Your task to perform on an android device: open app "Microsoft Outlook" (install if not already installed) Image 0: 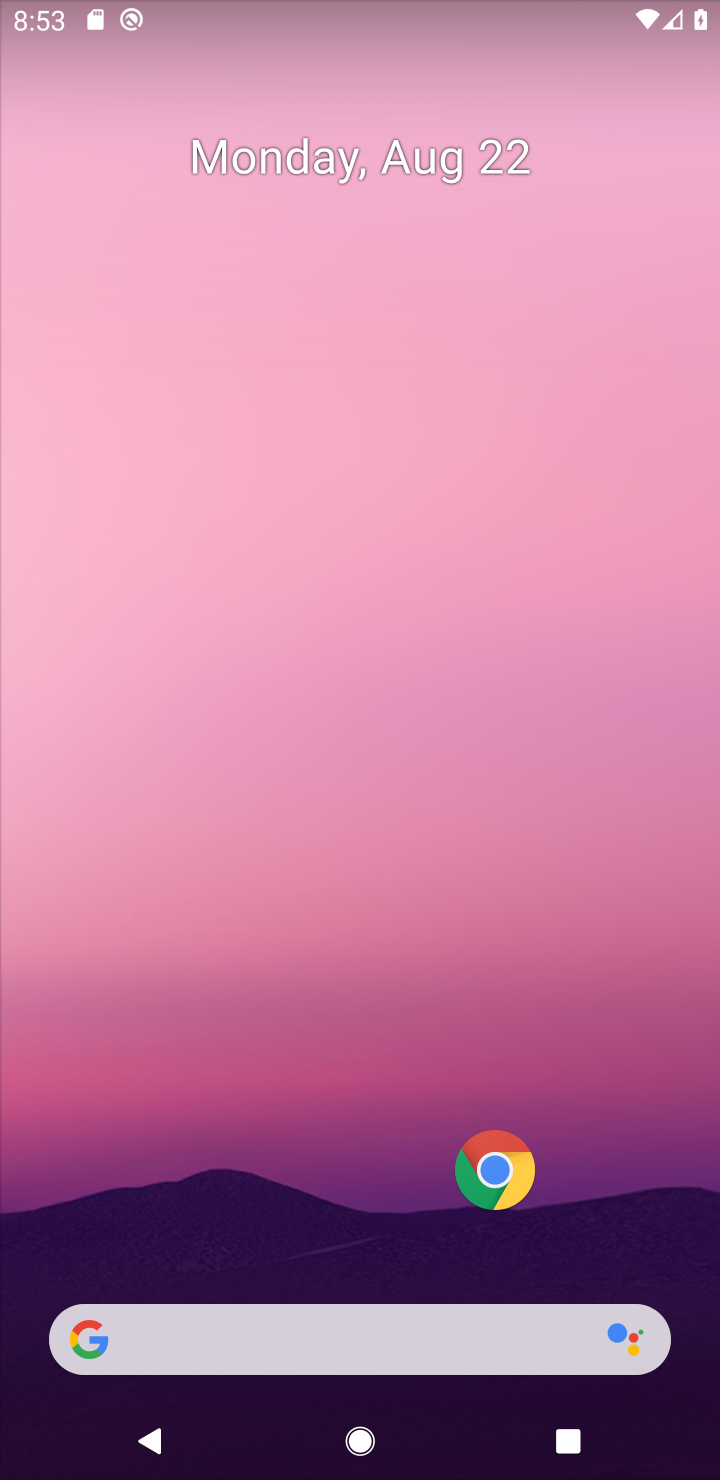
Step 0: drag from (264, 1065) to (397, 85)
Your task to perform on an android device: open app "Microsoft Outlook" (install if not already installed) Image 1: 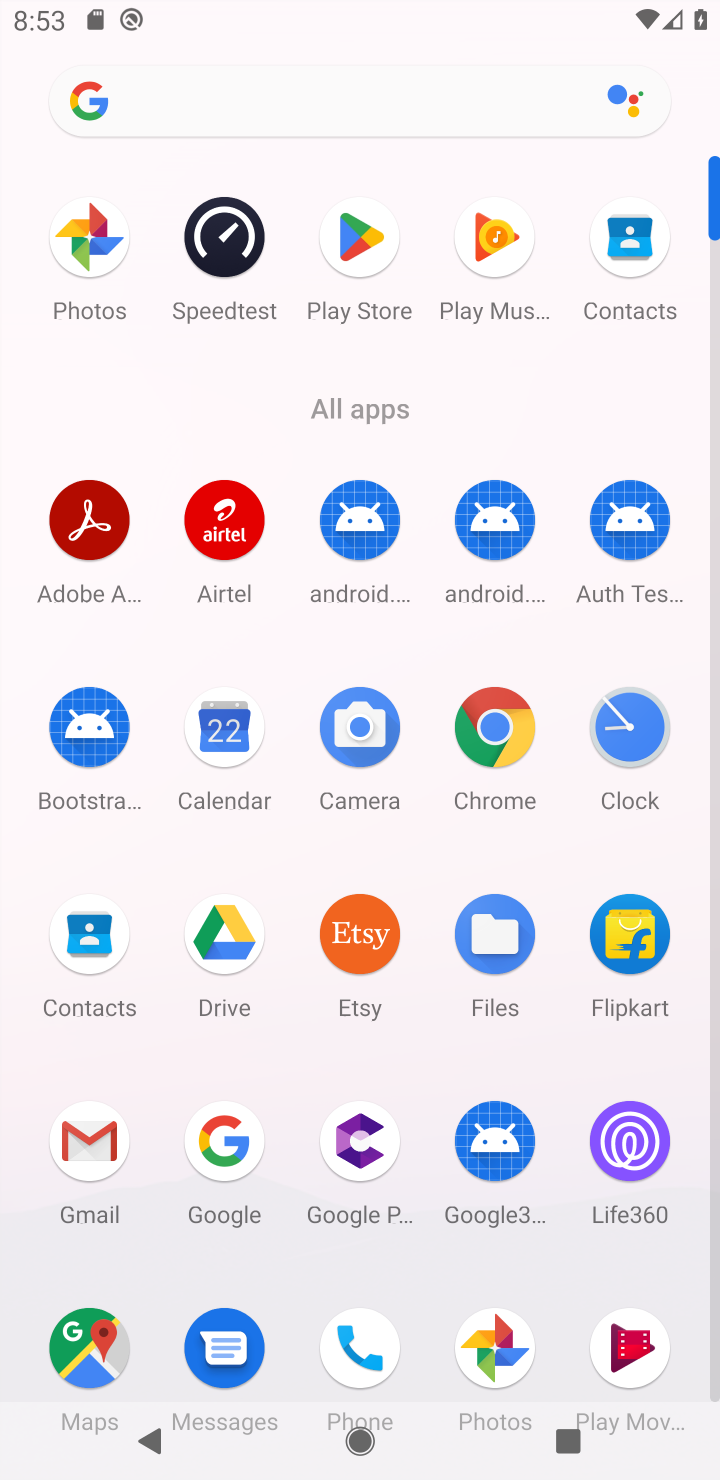
Step 1: click (375, 233)
Your task to perform on an android device: open app "Microsoft Outlook" (install if not already installed) Image 2: 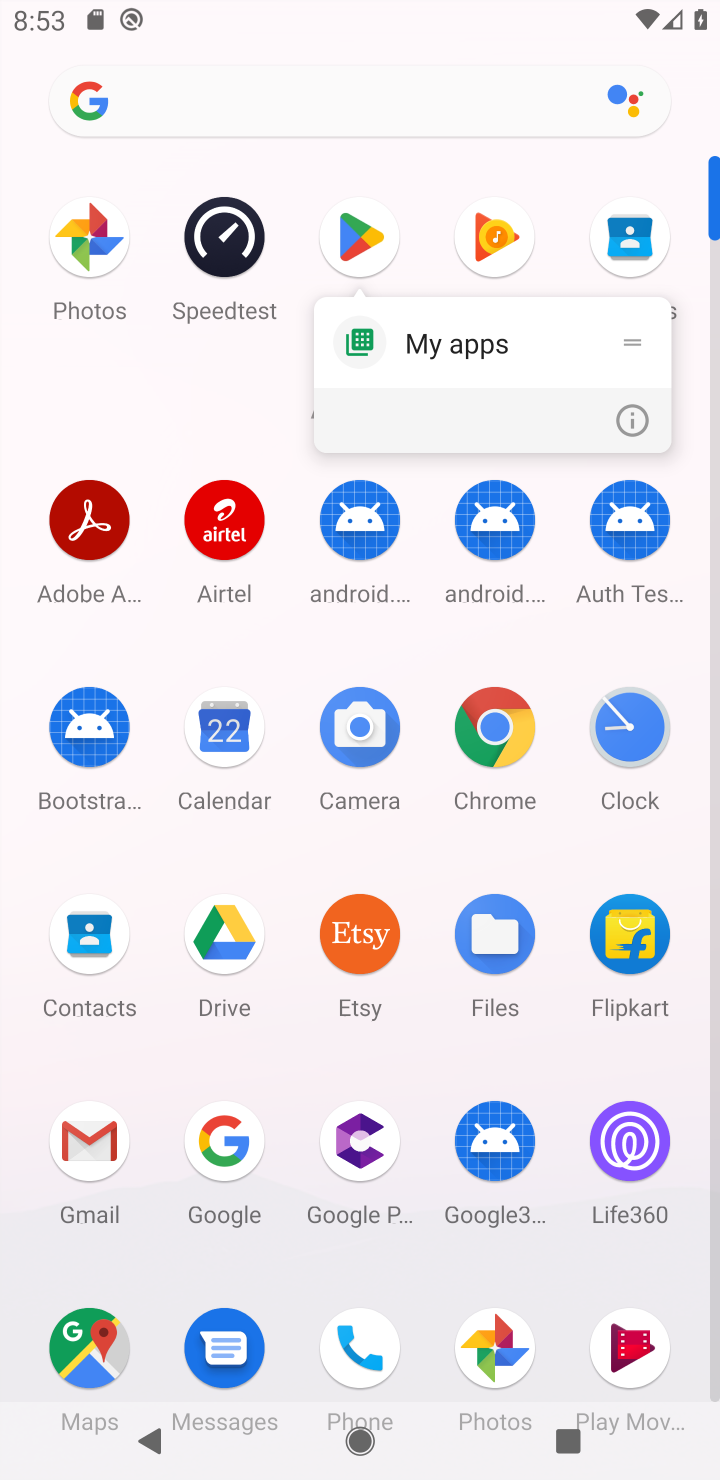
Step 2: click (355, 227)
Your task to perform on an android device: open app "Microsoft Outlook" (install if not already installed) Image 3: 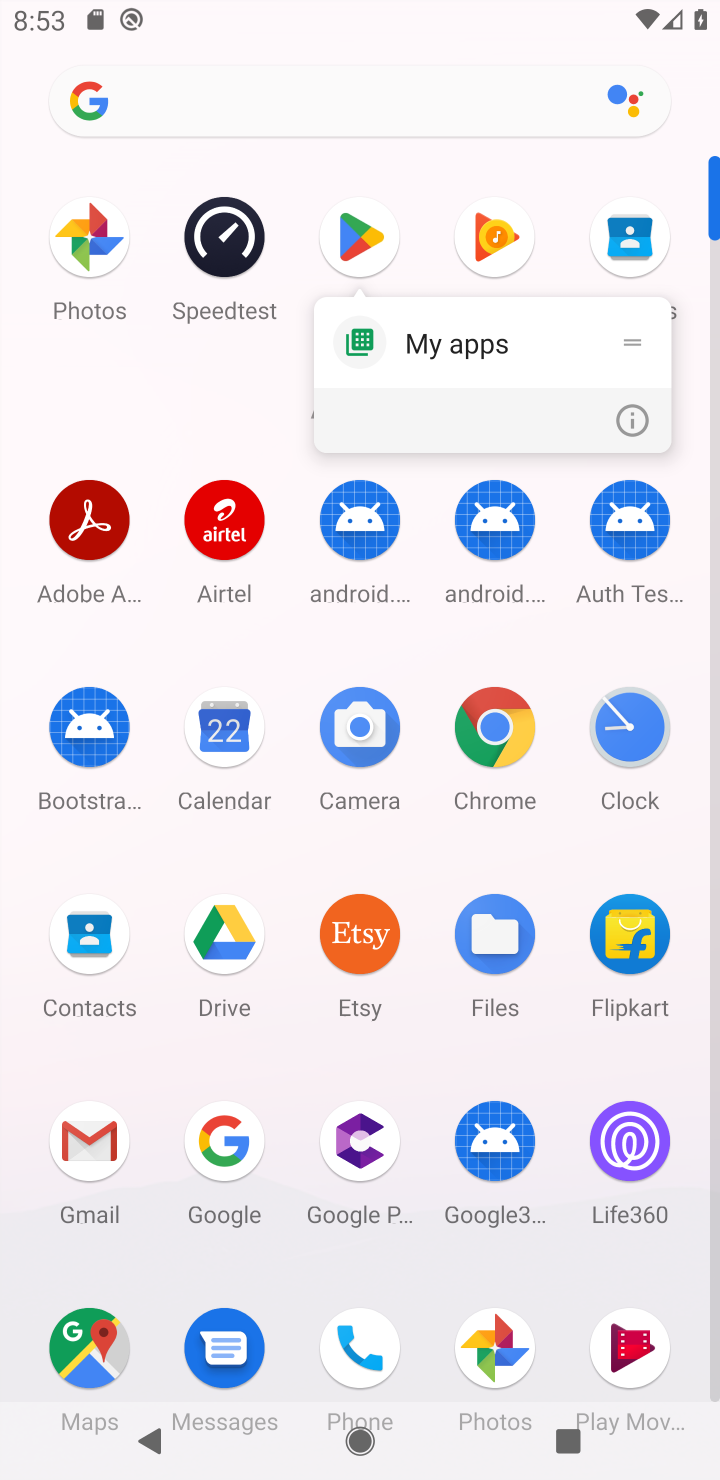
Step 3: click (345, 225)
Your task to perform on an android device: open app "Microsoft Outlook" (install if not already installed) Image 4: 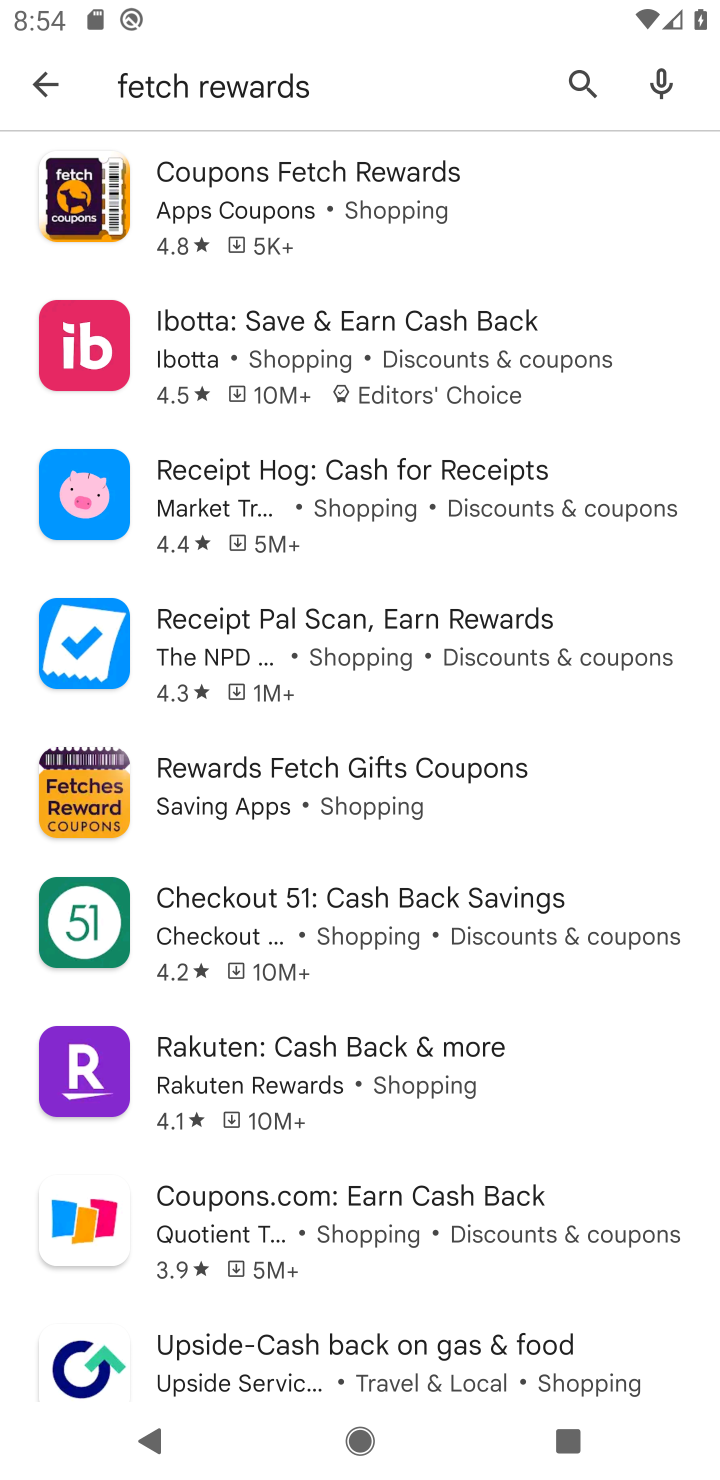
Step 4: click (582, 76)
Your task to perform on an android device: open app "Microsoft Outlook" (install if not already installed) Image 5: 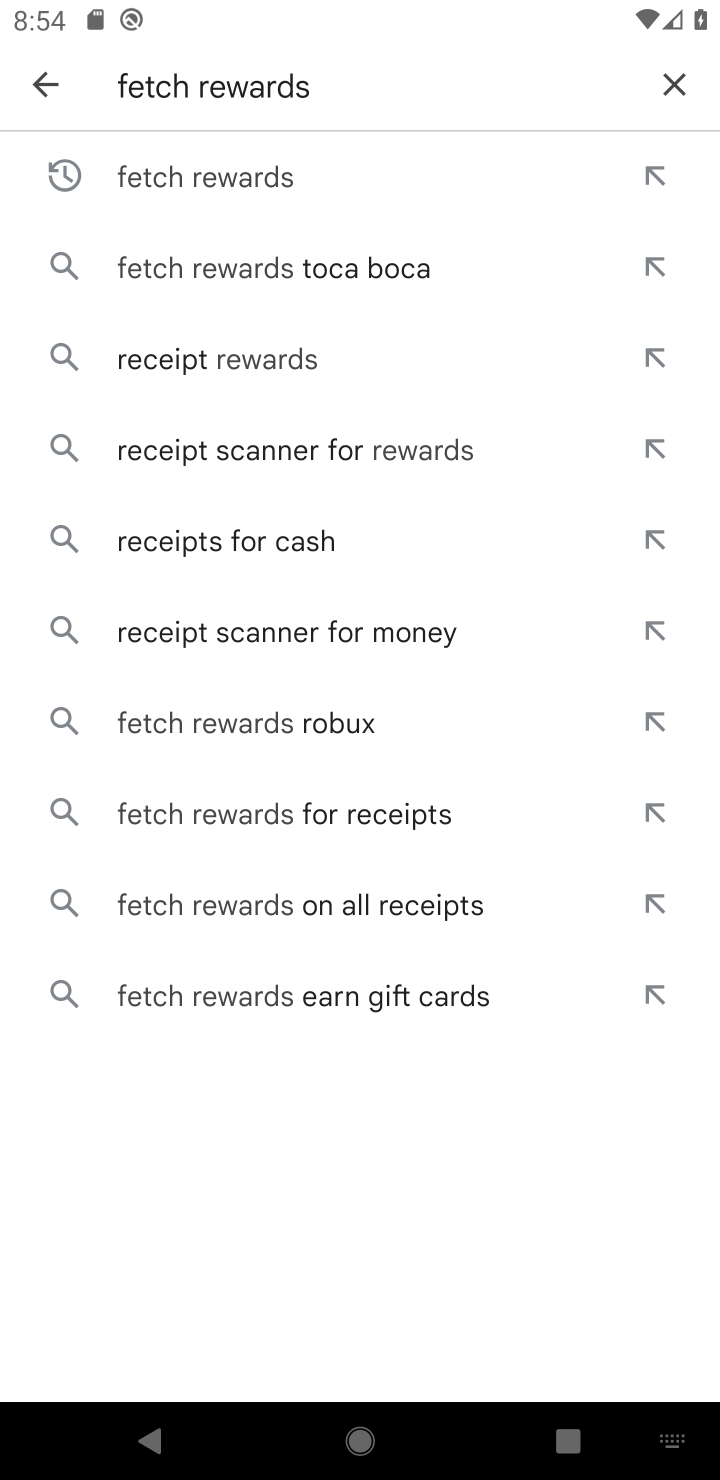
Step 5: click (666, 65)
Your task to perform on an android device: open app "Microsoft Outlook" (install if not already installed) Image 6: 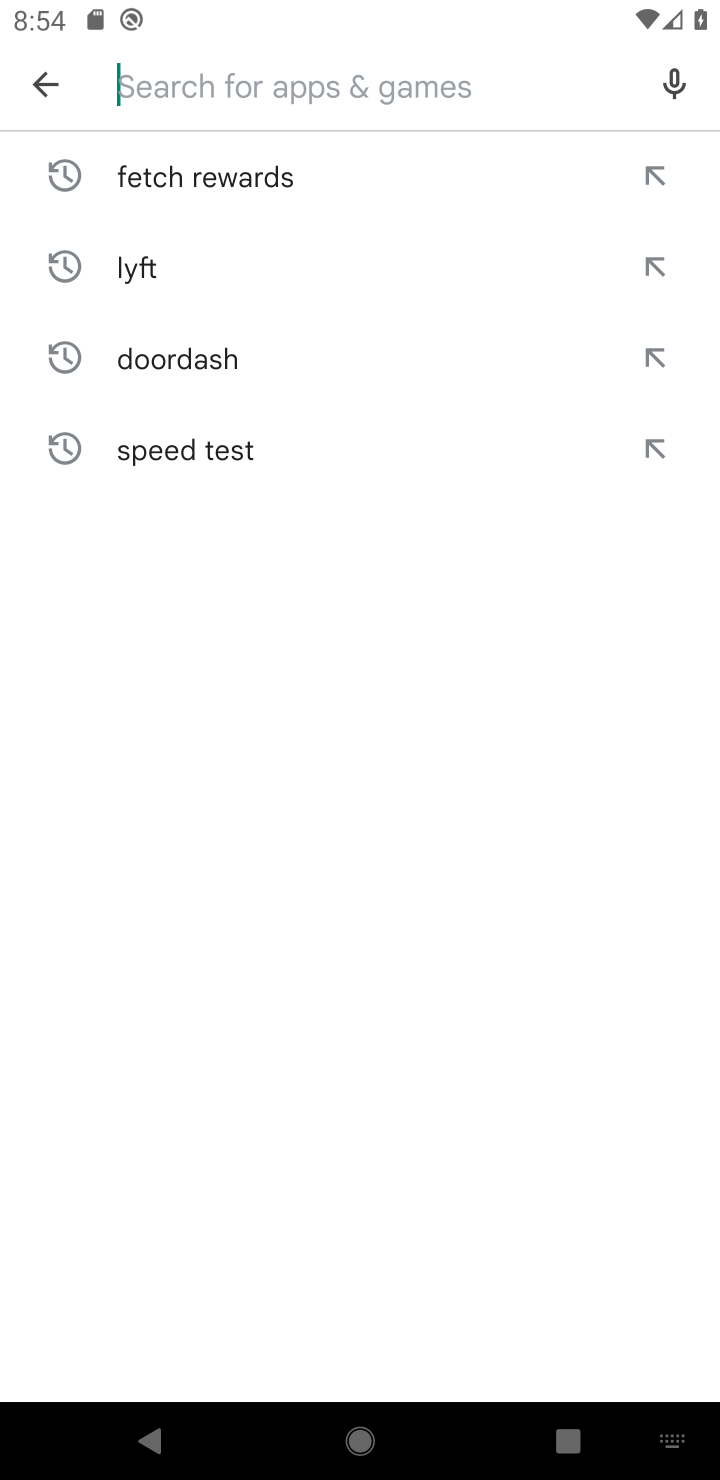
Step 6: click (223, 78)
Your task to perform on an android device: open app "Microsoft Outlook" (install if not already installed) Image 7: 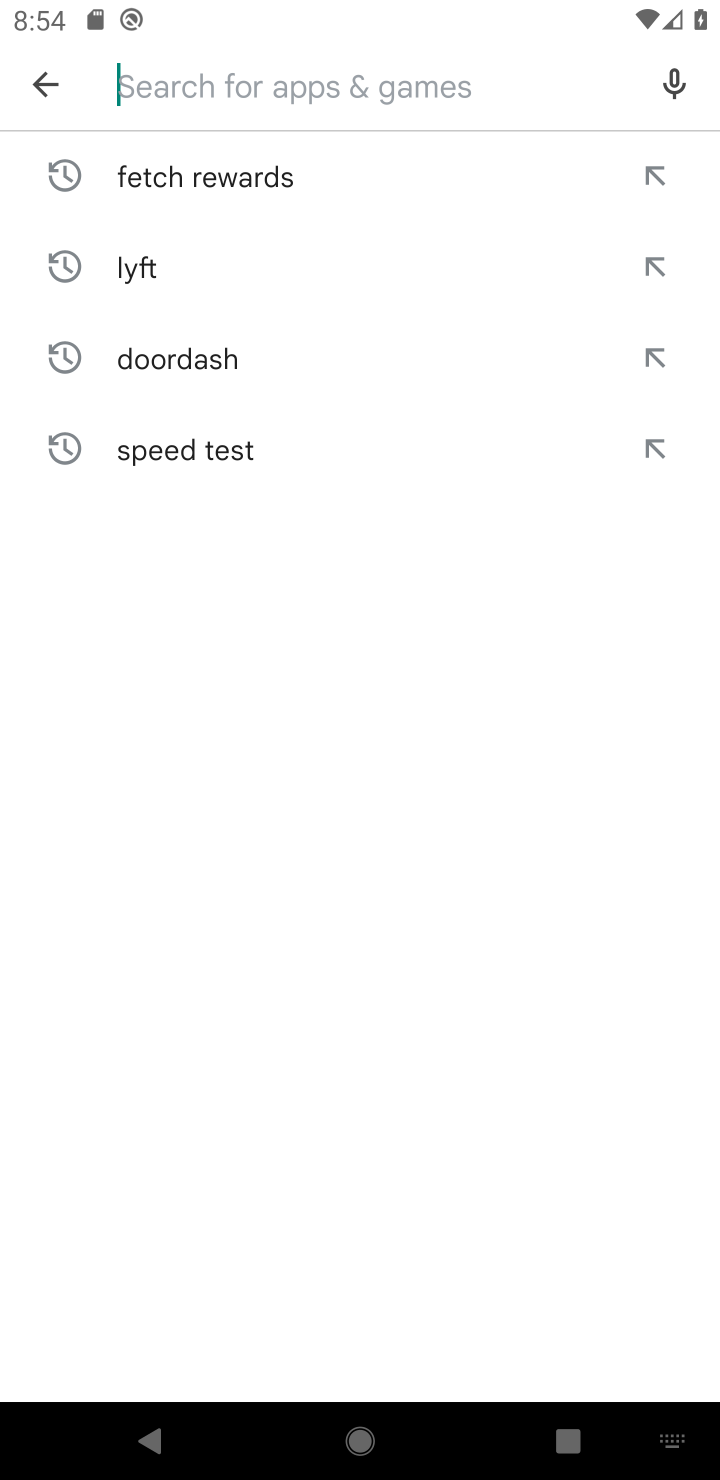
Step 7: type "Microsoft Outlook"
Your task to perform on an android device: open app "Microsoft Outlook" (install if not already installed) Image 8: 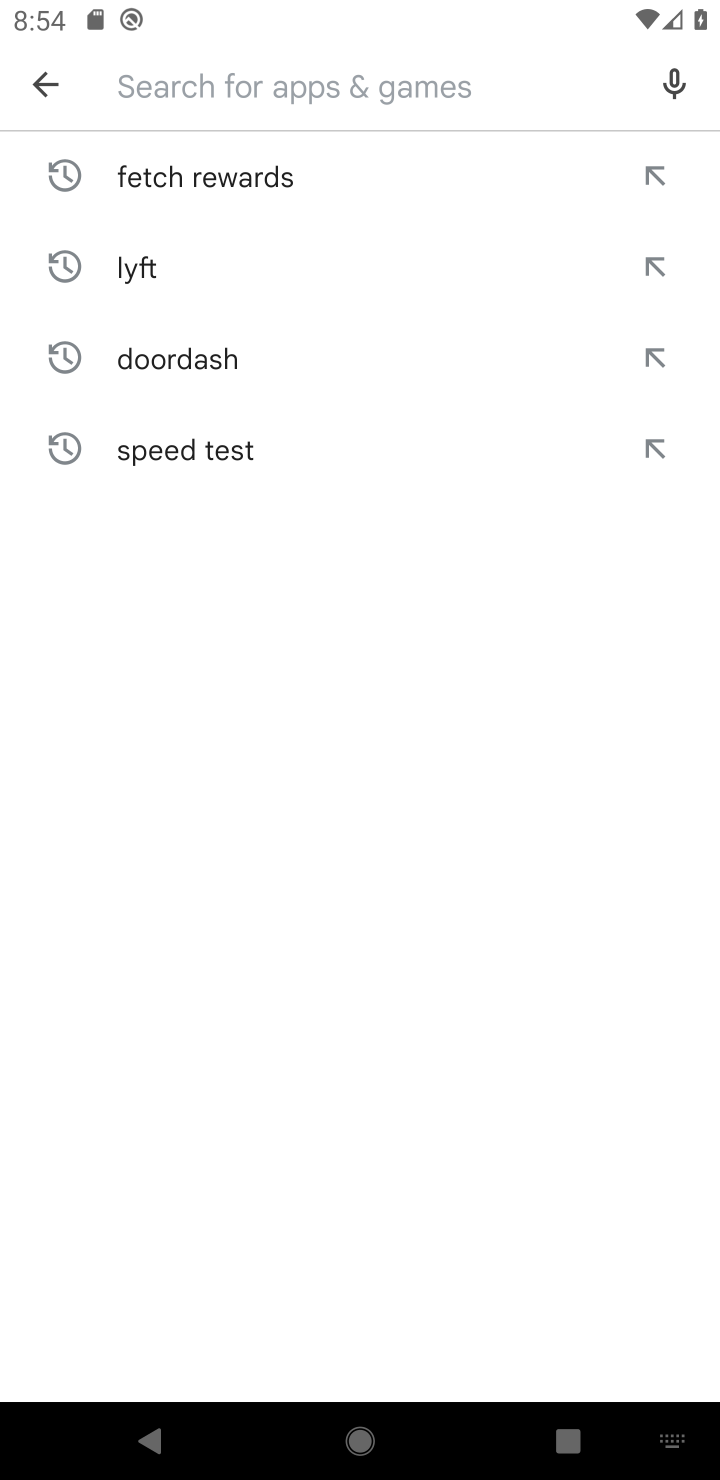
Step 8: click (347, 865)
Your task to perform on an android device: open app "Microsoft Outlook" (install if not already installed) Image 9: 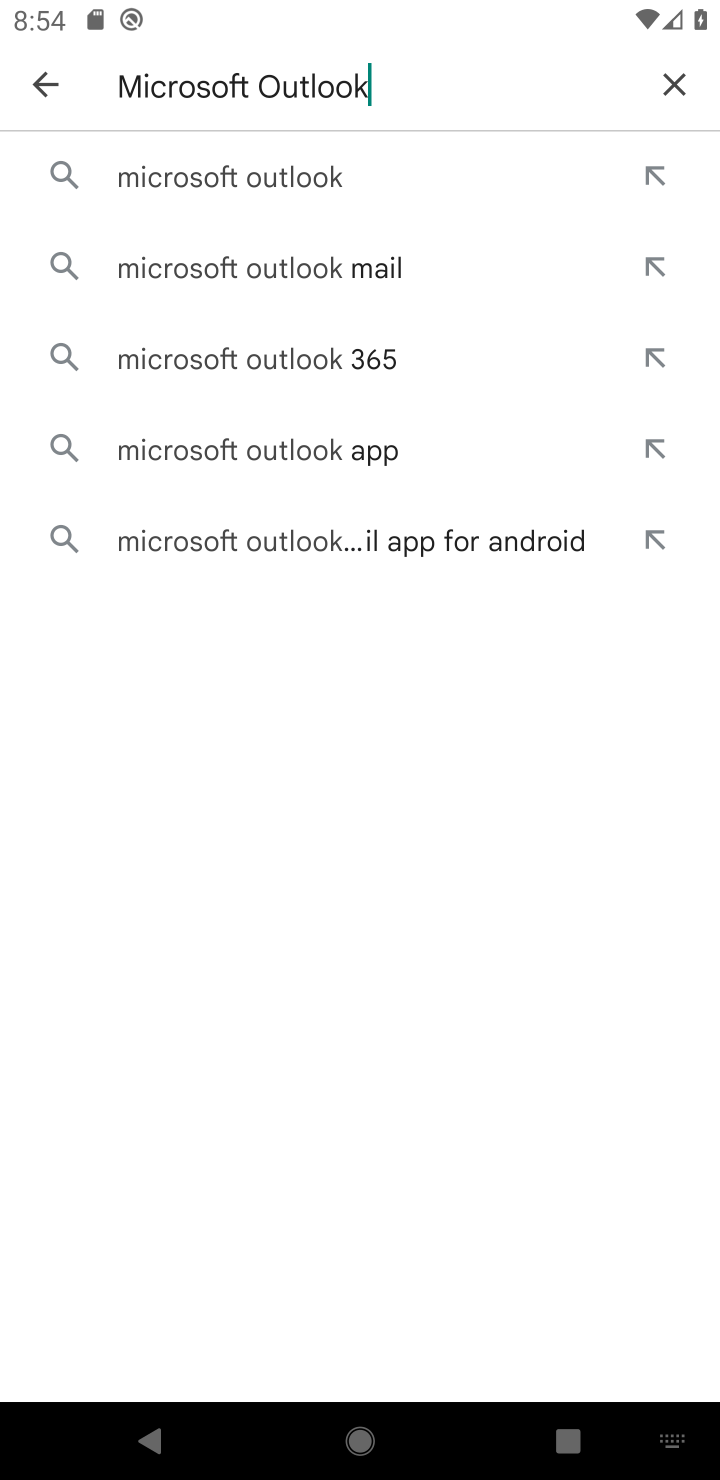
Step 9: click (326, 188)
Your task to perform on an android device: open app "Microsoft Outlook" (install if not already installed) Image 10: 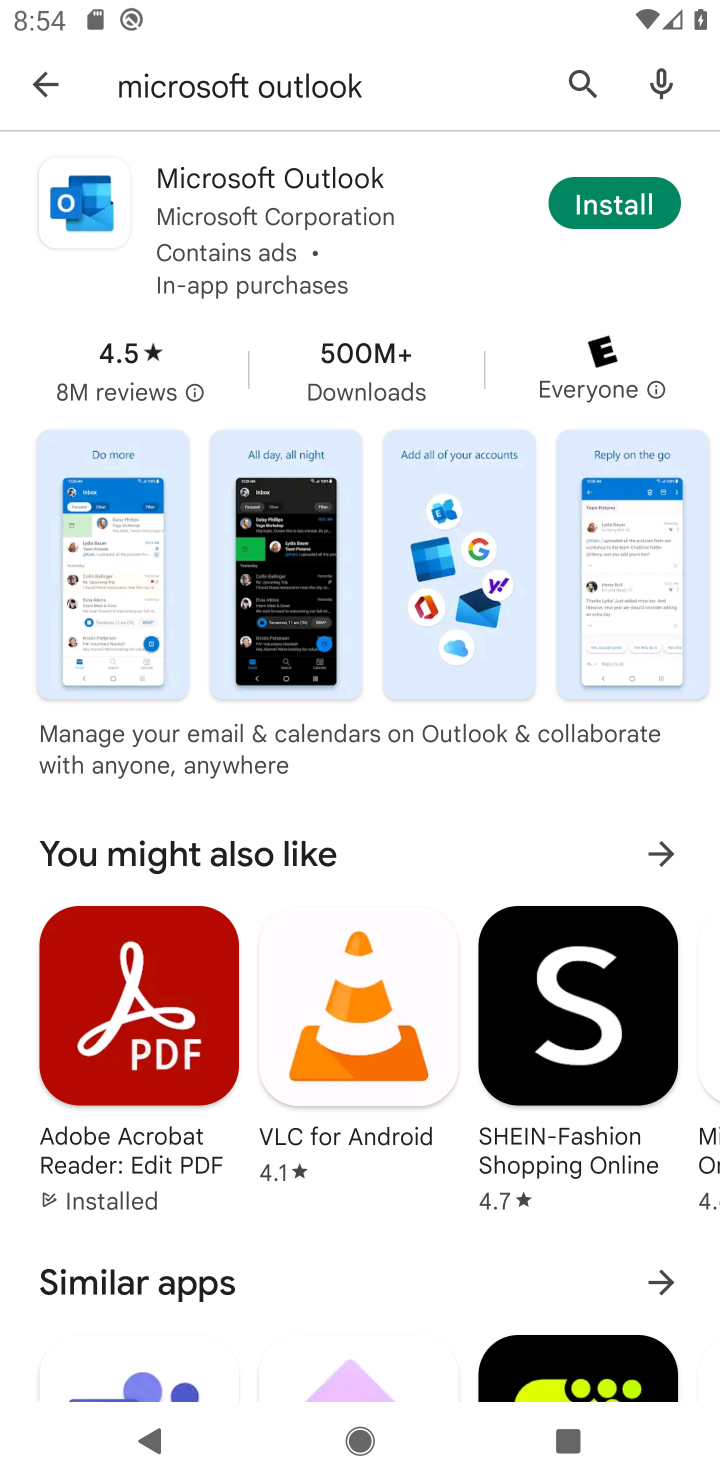
Step 10: click (595, 199)
Your task to perform on an android device: open app "Microsoft Outlook" (install if not already installed) Image 11: 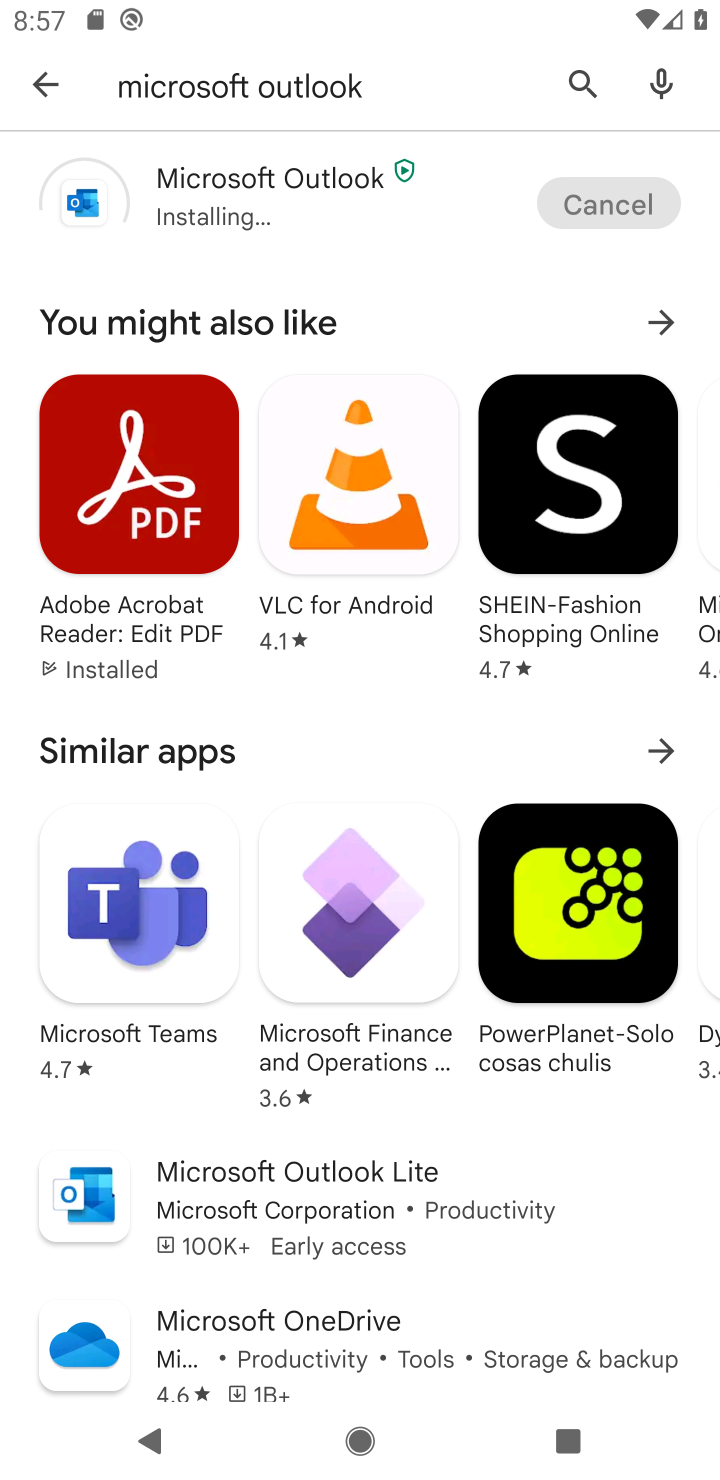
Step 11: press back button
Your task to perform on an android device: open app "Microsoft Outlook" (install if not already installed) Image 12: 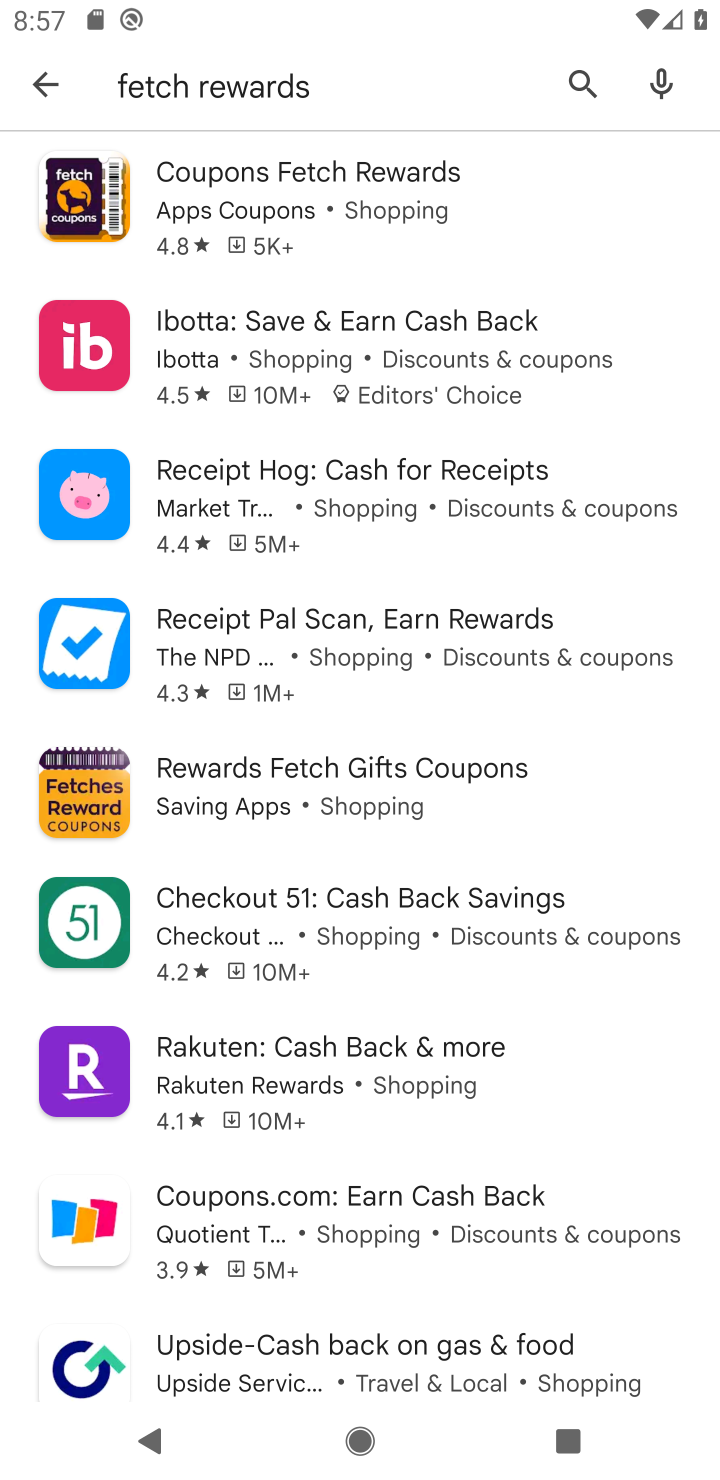
Step 12: click (570, 86)
Your task to perform on an android device: open app "Microsoft Outlook" (install if not already installed) Image 13: 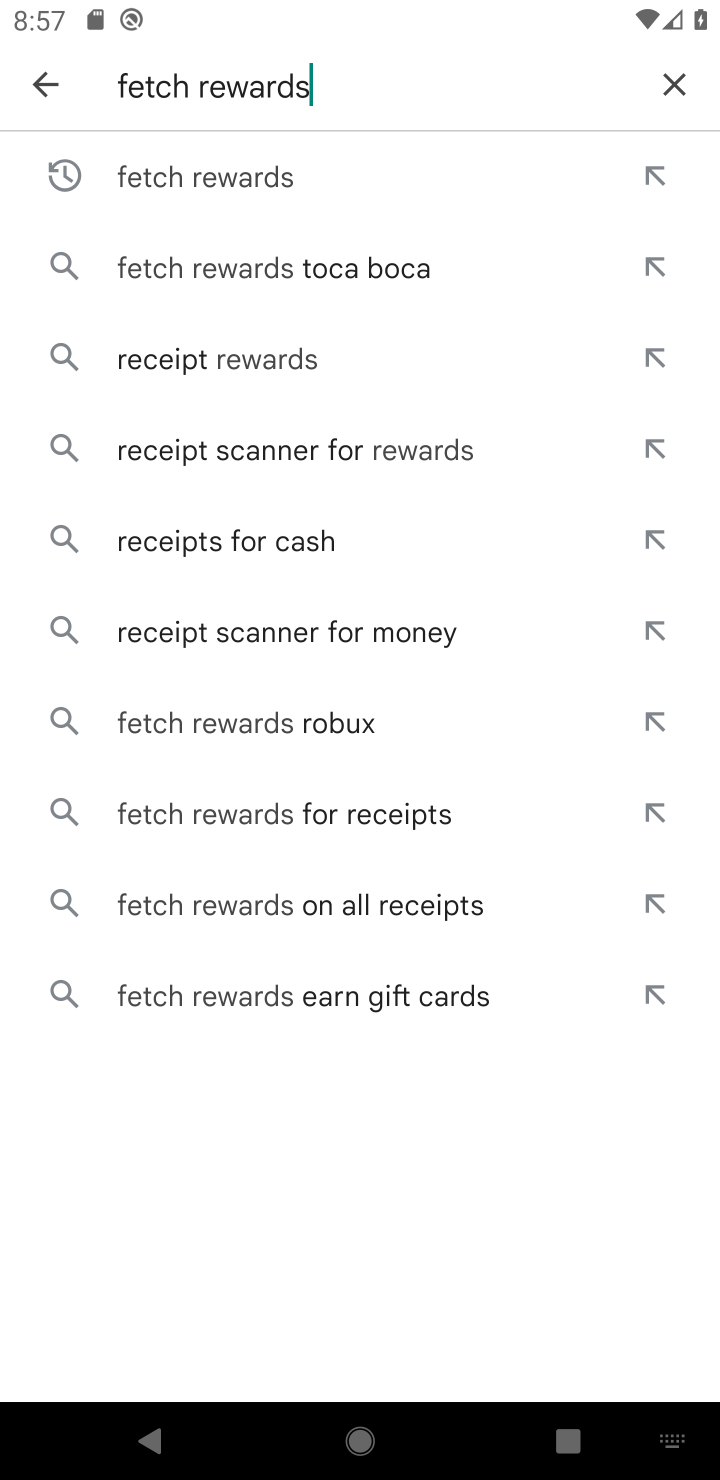
Step 13: click (694, 70)
Your task to perform on an android device: open app "Microsoft Outlook" (install if not already installed) Image 14: 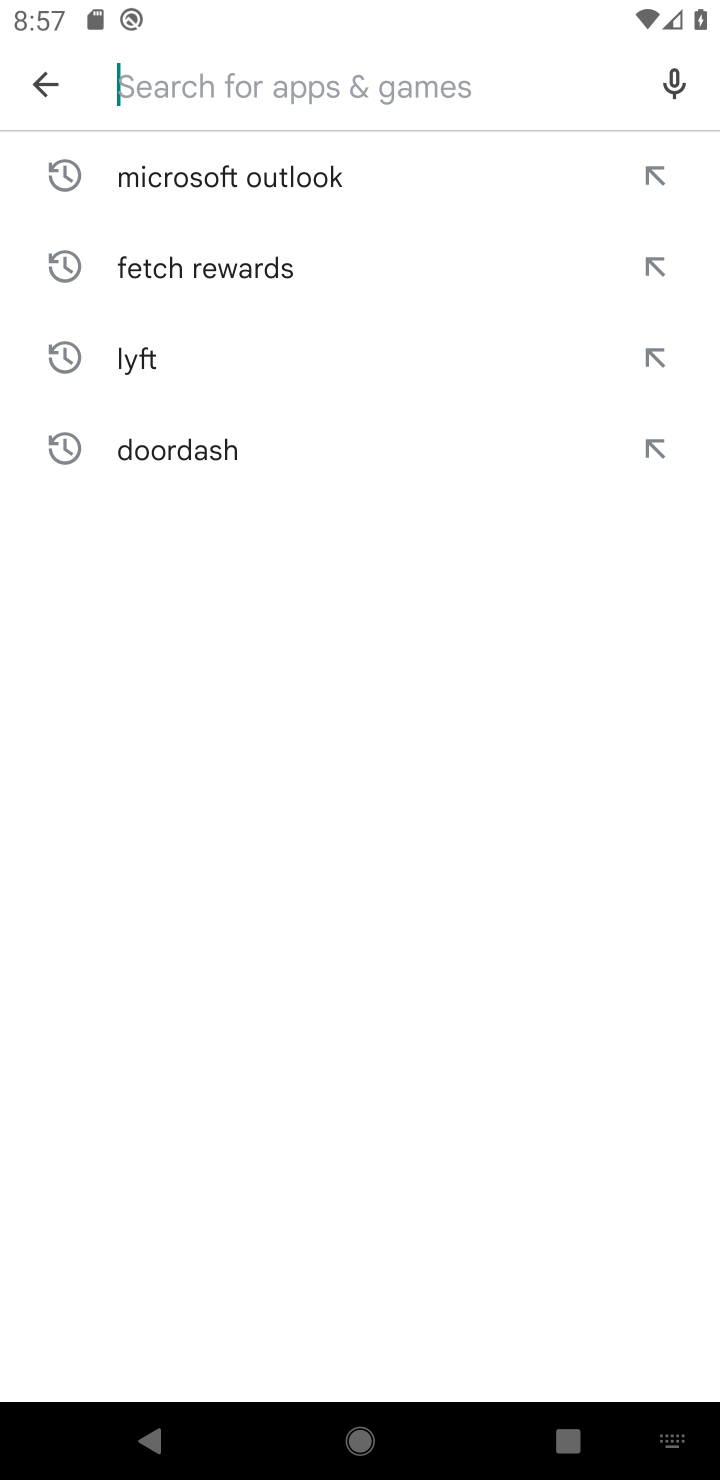
Step 14: click (234, 151)
Your task to perform on an android device: open app "Microsoft Outlook" (install if not already installed) Image 15: 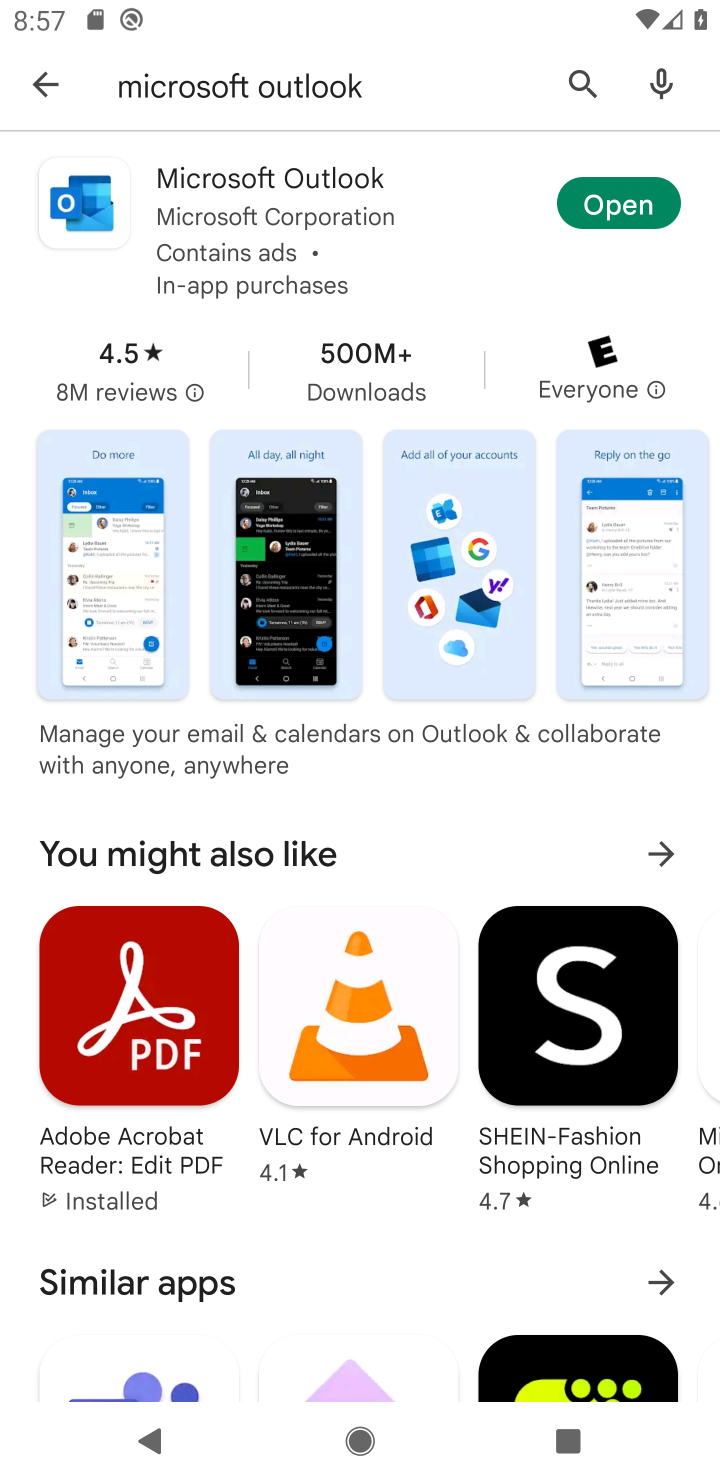
Step 15: click (641, 203)
Your task to perform on an android device: open app "Microsoft Outlook" (install if not already installed) Image 16: 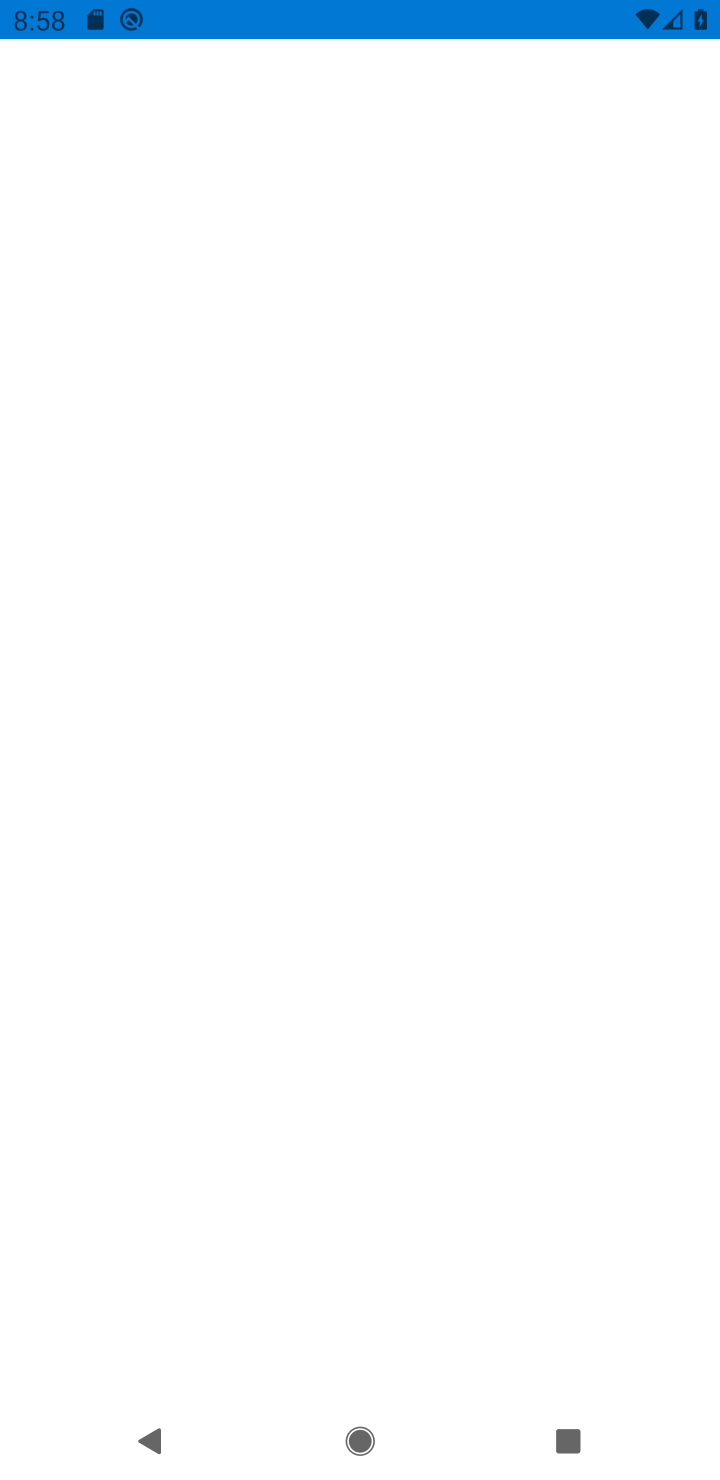
Step 16: task complete